Your task to perform on an android device: Open notification settings Image 0: 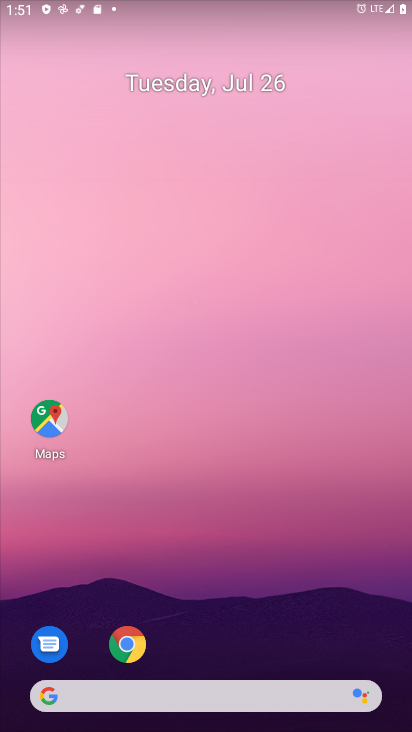
Step 0: drag from (167, 669) to (260, 77)
Your task to perform on an android device: Open notification settings Image 1: 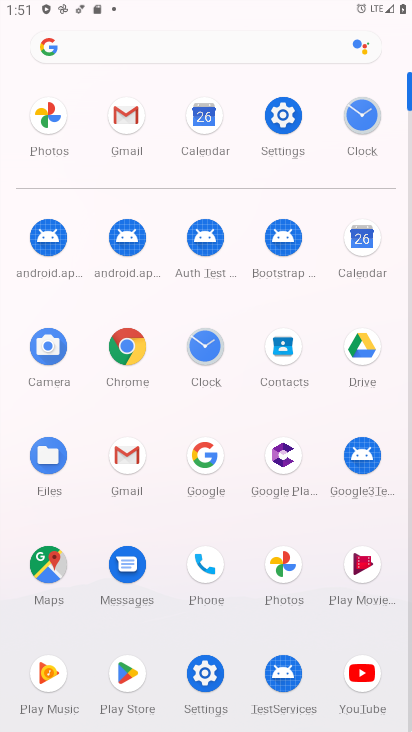
Step 1: click (280, 124)
Your task to perform on an android device: Open notification settings Image 2: 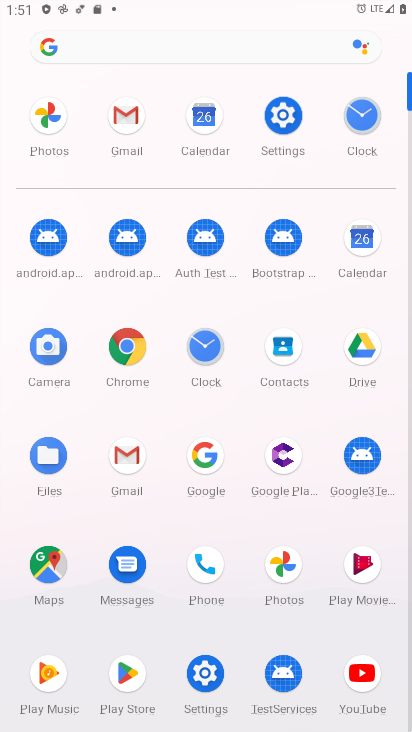
Step 2: click (280, 124)
Your task to perform on an android device: Open notification settings Image 3: 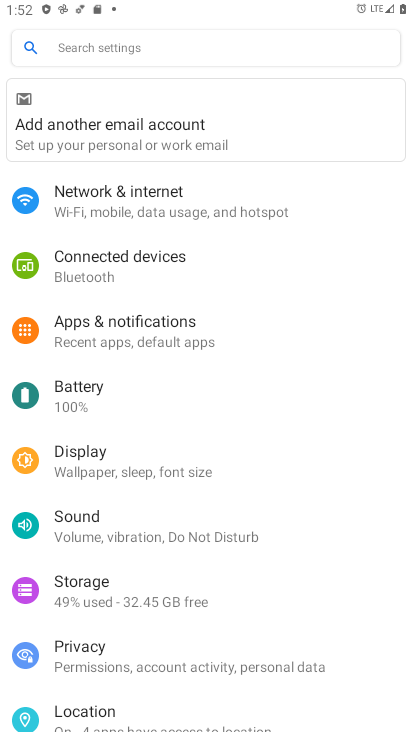
Step 3: click (201, 335)
Your task to perform on an android device: Open notification settings Image 4: 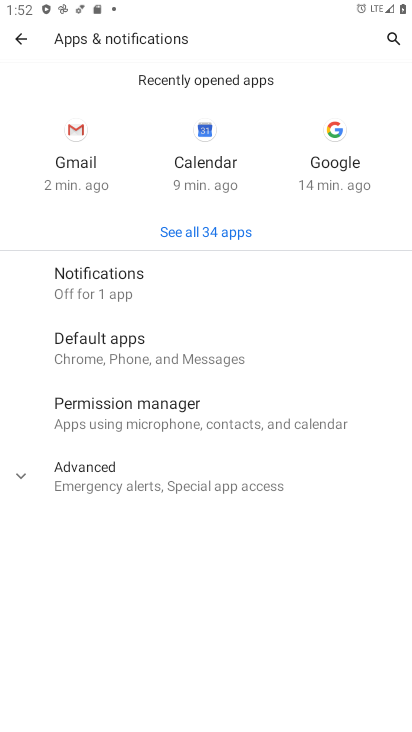
Step 4: task complete